Your task to perform on an android device: toggle data saver in the chrome app Image 0: 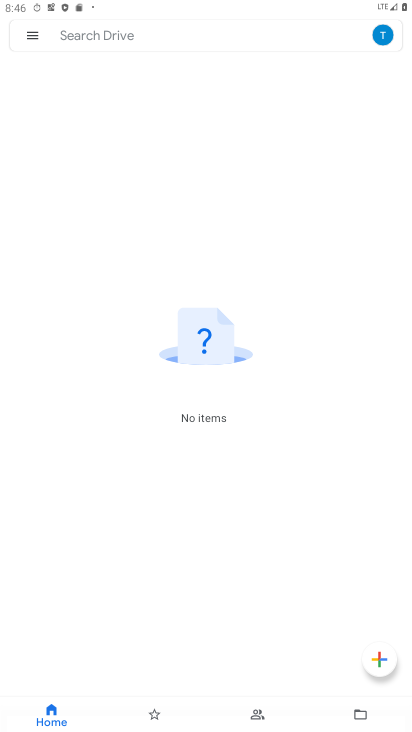
Step 0: press home button
Your task to perform on an android device: toggle data saver in the chrome app Image 1: 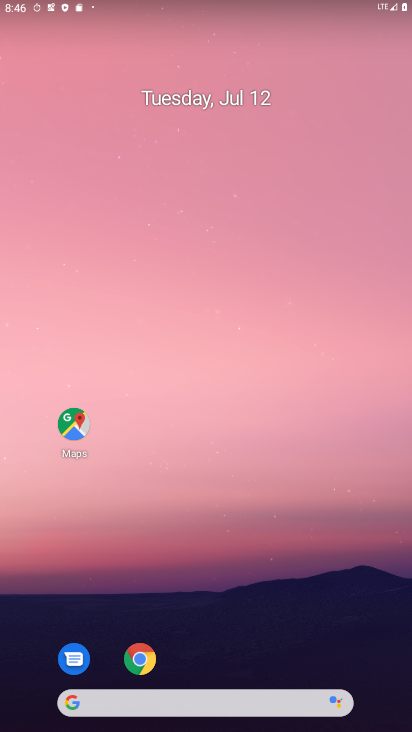
Step 1: drag from (381, 675) to (187, 105)
Your task to perform on an android device: toggle data saver in the chrome app Image 2: 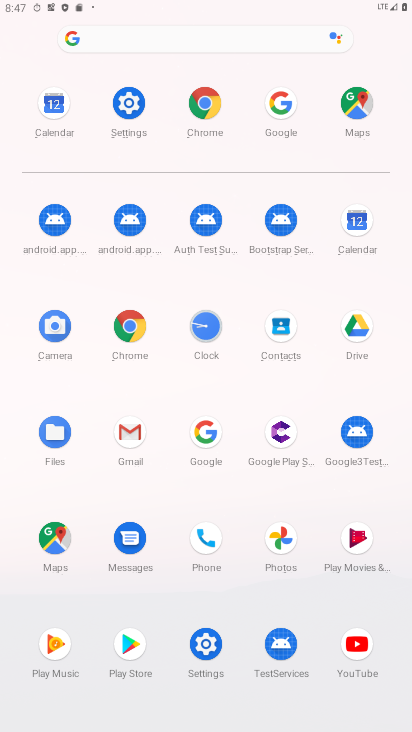
Step 2: click (136, 330)
Your task to perform on an android device: toggle data saver in the chrome app Image 3: 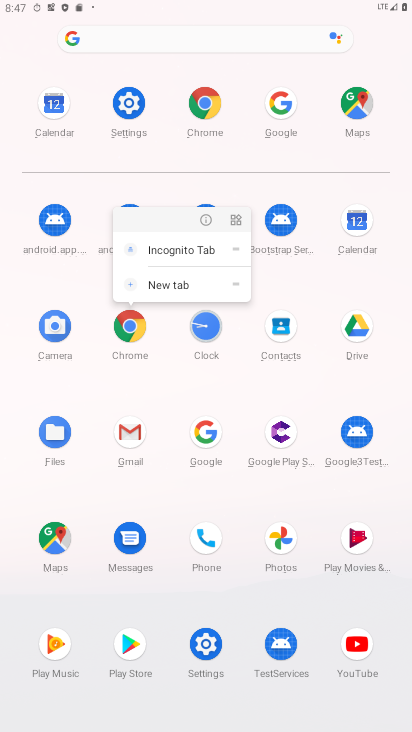
Step 3: click (134, 329)
Your task to perform on an android device: toggle data saver in the chrome app Image 4: 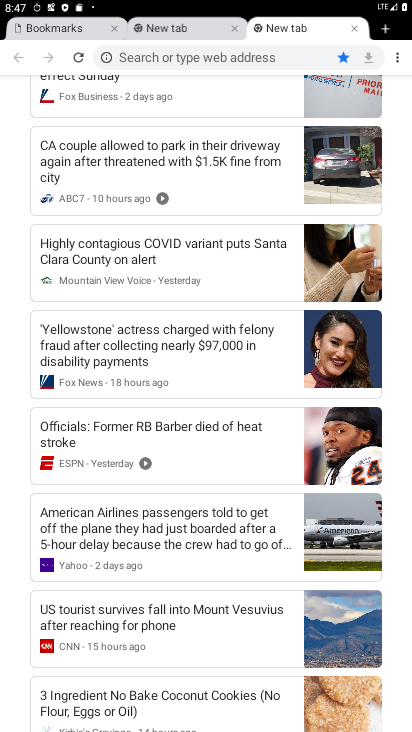
Step 4: click (396, 54)
Your task to perform on an android device: toggle data saver in the chrome app Image 5: 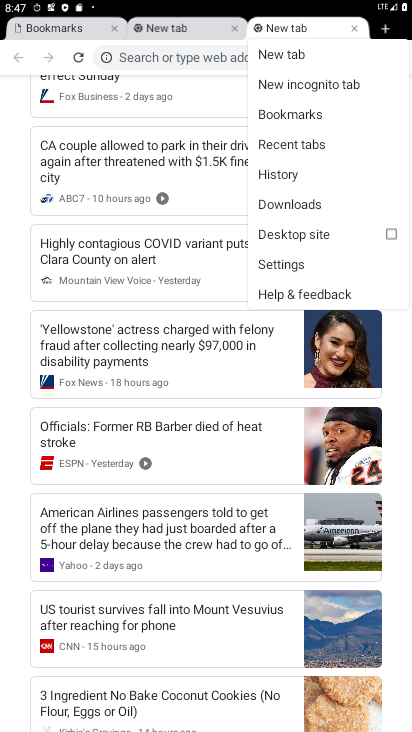
Step 5: click (281, 260)
Your task to perform on an android device: toggle data saver in the chrome app Image 6: 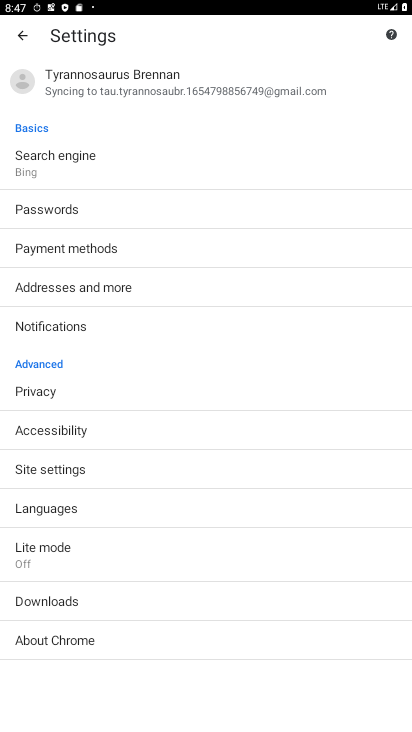
Step 6: click (96, 556)
Your task to perform on an android device: toggle data saver in the chrome app Image 7: 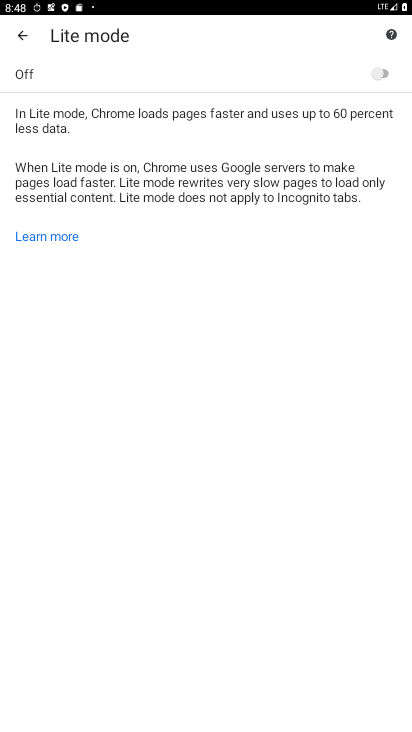
Step 7: click (369, 70)
Your task to perform on an android device: toggle data saver in the chrome app Image 8: 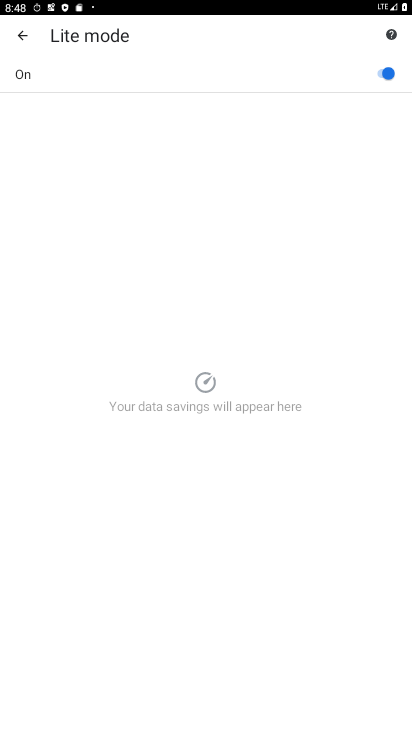
Step 8: task complete